Your task to perform on an android device: Open Android settings Image 0: 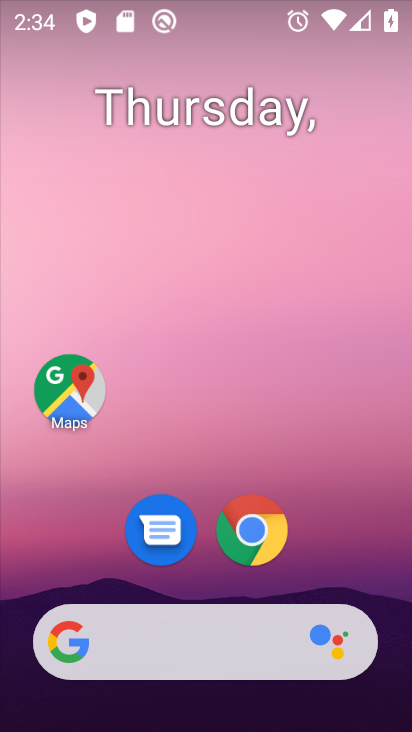
Step 0: drag from (266, 704) to (380, 135)
Your task to perform on an android device: Open Android settings Image 1: 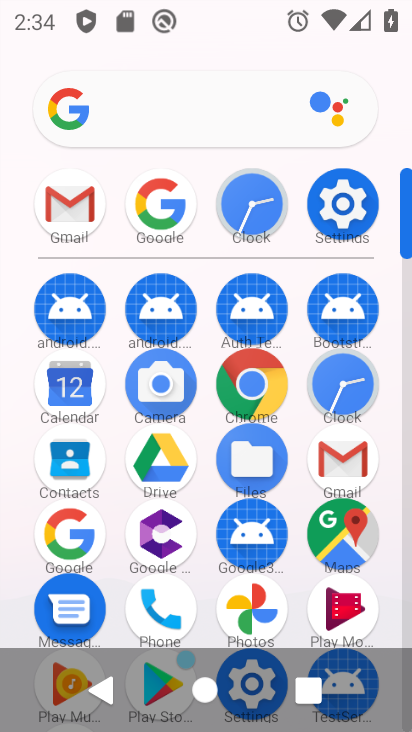
Step 1: click (350, 197)
Your task to perform on an android device: Open Android settings Image 2: 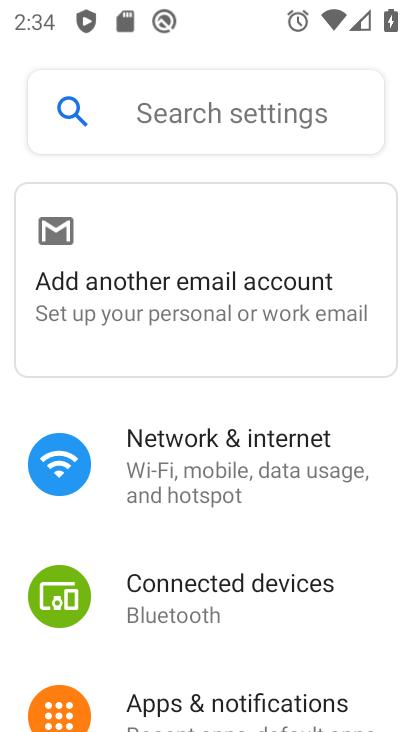
Step 2: task complete